Your task to perform on an android device: turn on javascript in the chrome app Image 0: 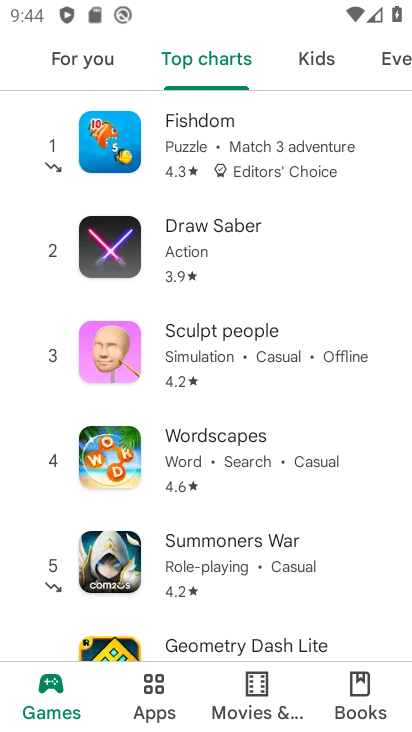
Step 0: press home button
Your task to perform on an android device: turn on javascript in the chrome app Image 1: 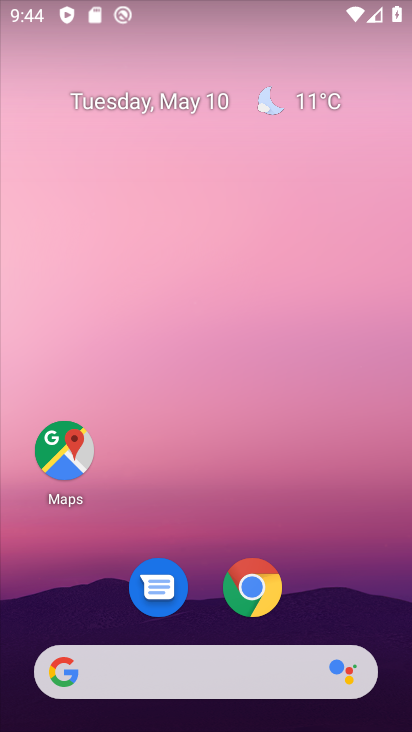
Step 1: drag from (199, 585) to (265, 190)
Your task to perform on an android device: turn on javascript in the chrome app Image 2: 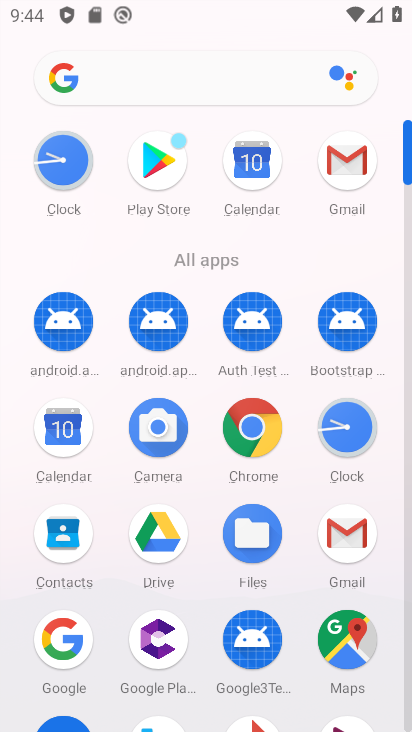
Step 2: click (262, 437)
Your task to perform on an android device: turn on javascript in the chrome app Image 3: 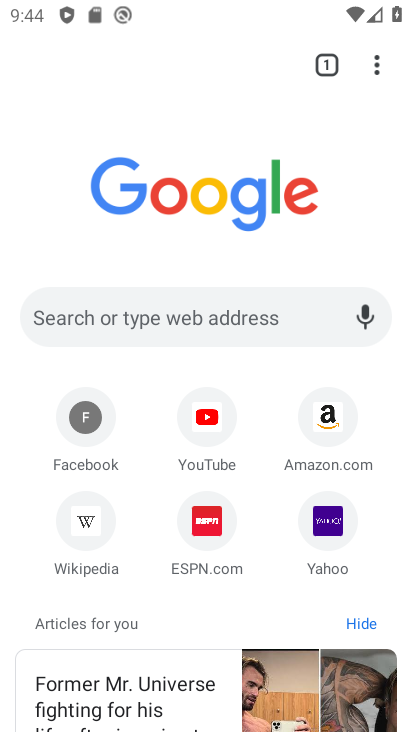
Step 3: click (380, 65)
Your task to perform on an android device: turn on javascript in the chrome app Image 4: 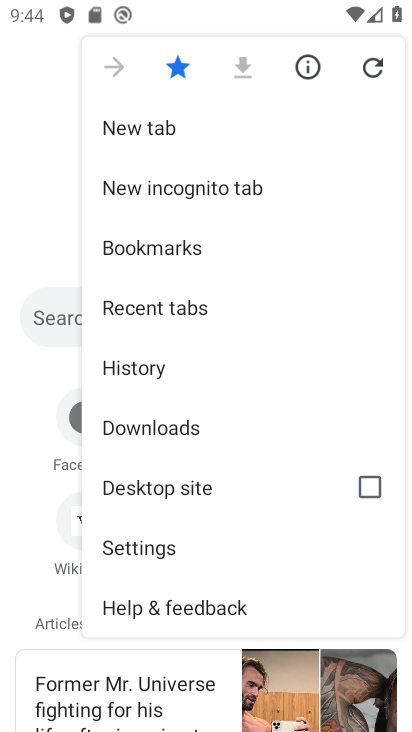
Step 4: click (163, 544)
Your task to perform on an android device: turn on javascript in the chrome app Image 5: 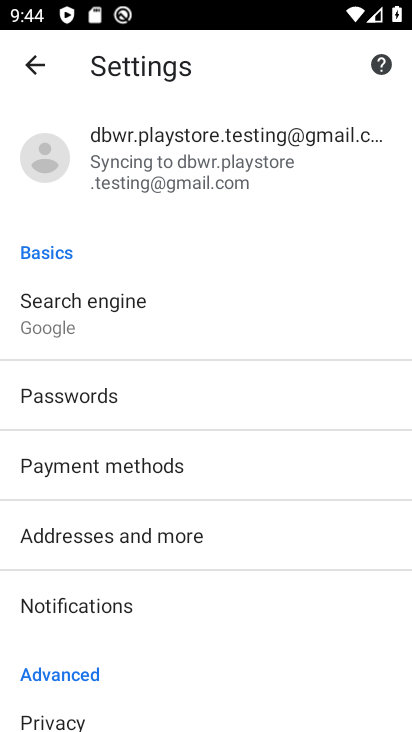
Step 5: drag from (101, 595) to (142, 337)
Your task to perform on an android device: turn on javascript in the chrome app Image 6: 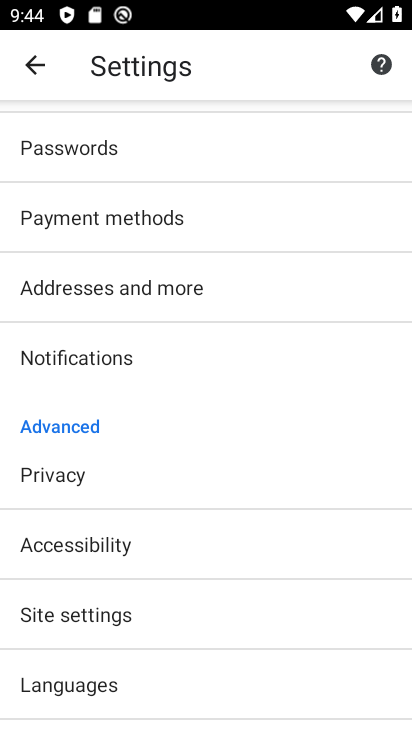
Step 6: click (104, 629)
Your task to perform on an android device: turn on javascript in the chrome app Image 7: 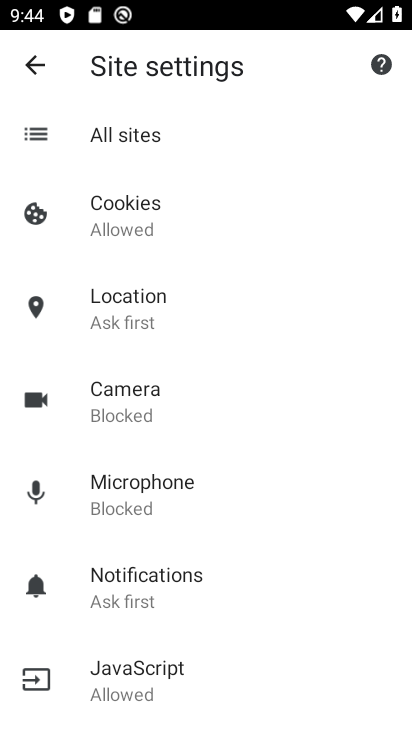
Step 7: click (133, 666)
Your task to perform on an android device: turn on javascript in the chrome app Image 8: 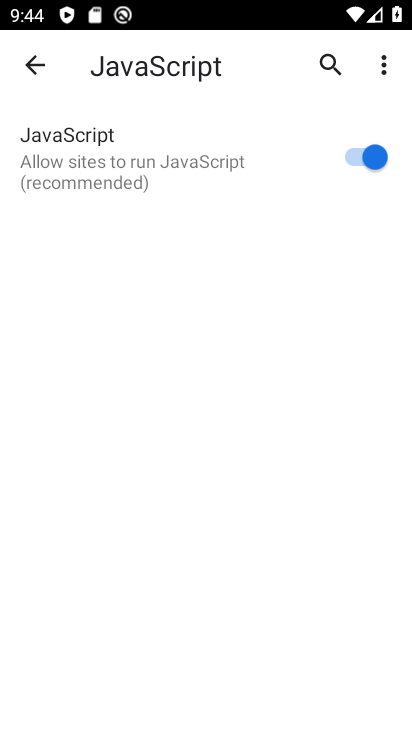
Step 8: task complete